Your task to perform on an android device: Open calendar and show me the first week of next month Image 0: 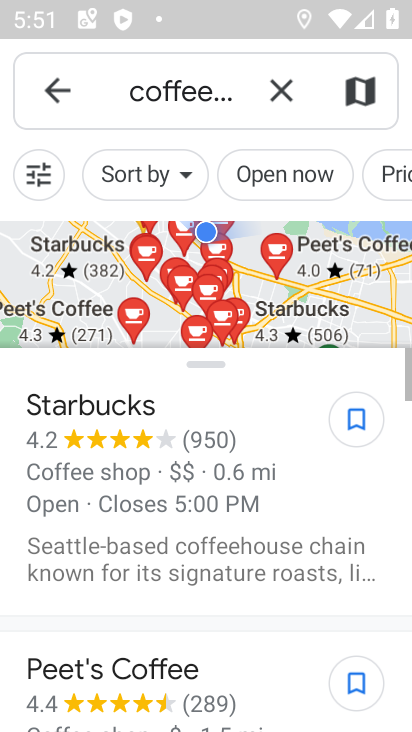
Step 0: press home button
Your task to perform on an android device: Open calendar and show me the first week of next month Image 1: 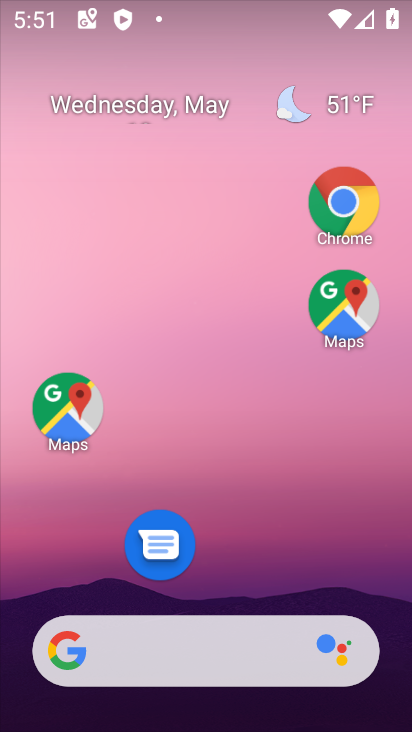
Step 1: drag from (236, 449) to (159, 135)
Your task to perform on an android device: Open calendar and show me the first week of next month Image 2: 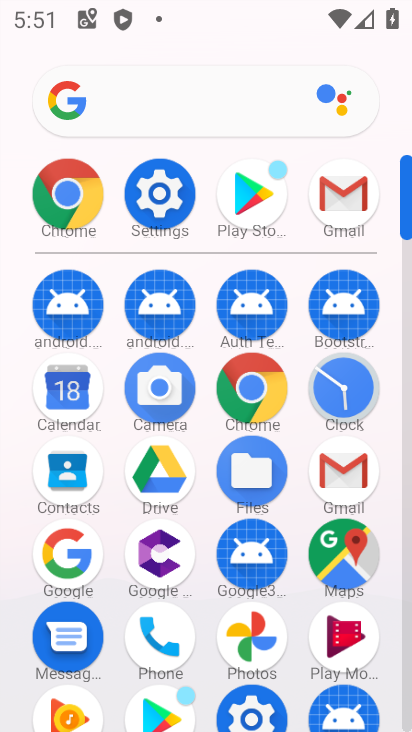
Step 2: click (66, 400)
Your task to perform on an android device: Open calendar and show me the first week of next month Image 3: 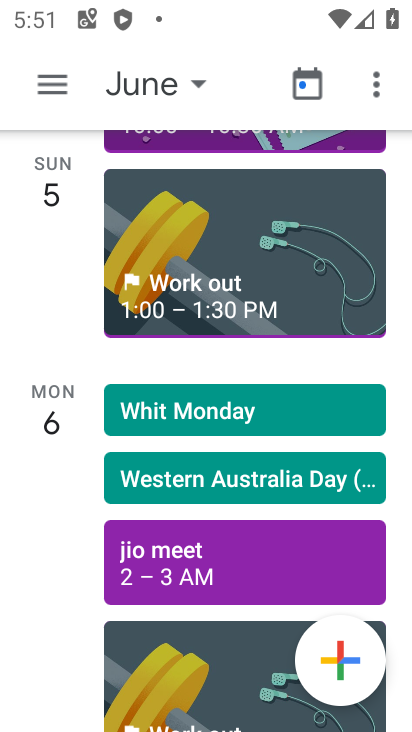
Step 3: click (45, 95)
Your task to perform on an android device: Open calendar and show me the first week of next month Image 4: 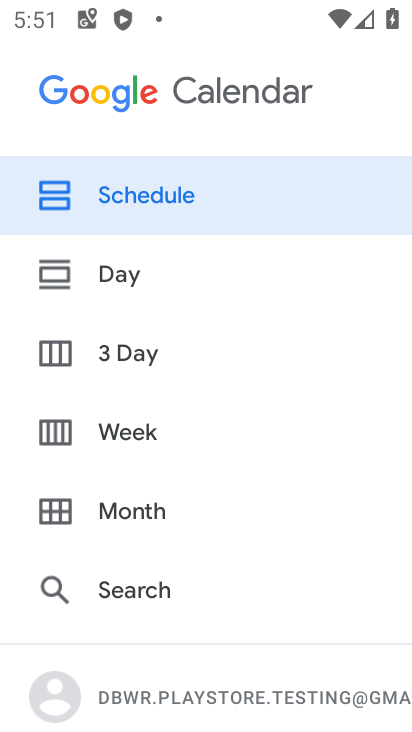
Step 4: click (129, 437)
Your task to perform on an android device: Open calendar and show me the first week of next month Image 5: 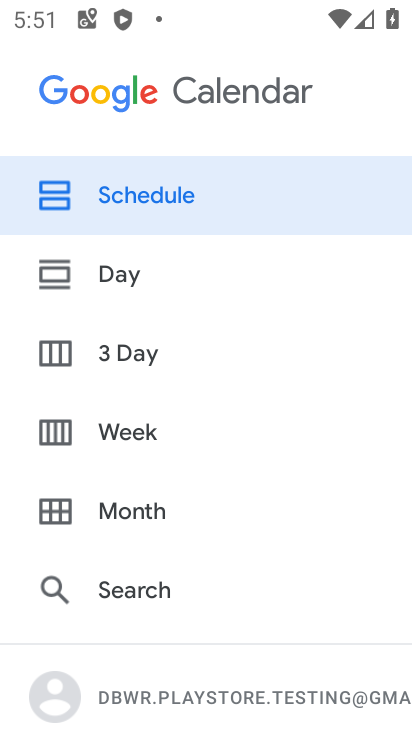
Step 5: click (135, 435)
Your task to perform on an android device: Open calendar and show me the first week of next month Image 6: 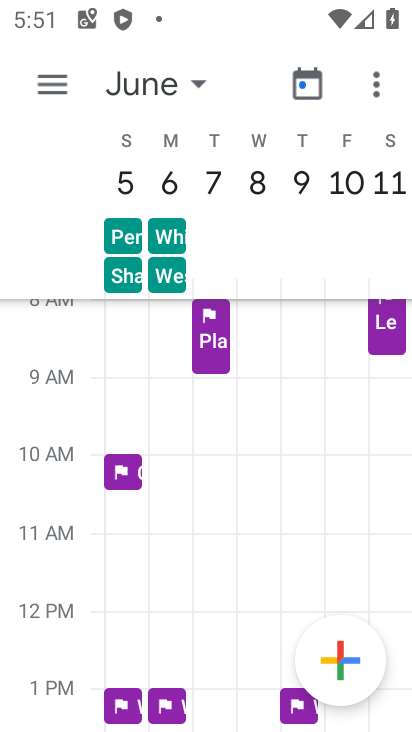
Step 6: click (156, 91)
Your task to perform on an android device: Open calendar and show me the first week of next month Image 7: 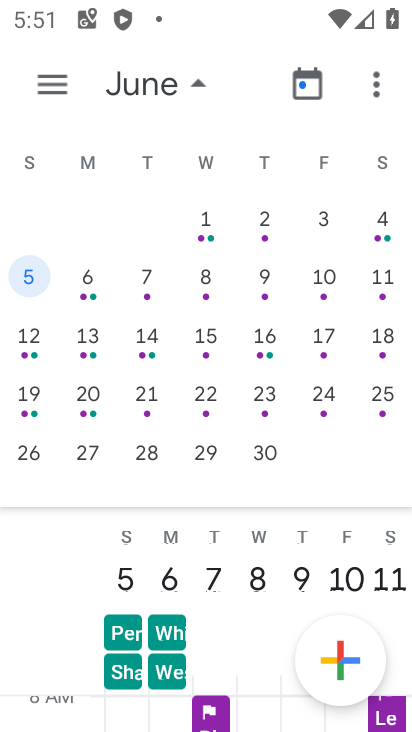
Step 7: task complete